Your task to perform on an android device: turn on bluetooth scan Image 0: 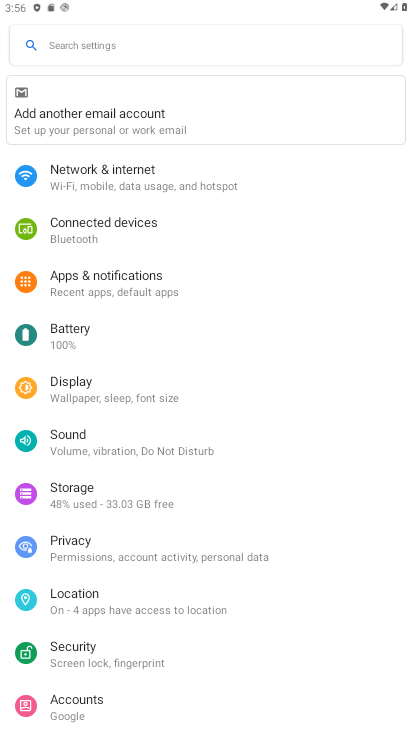
Step 0: click (86, 629)
Your task to perform on an android device: turn on bluetooth scan Image 1: 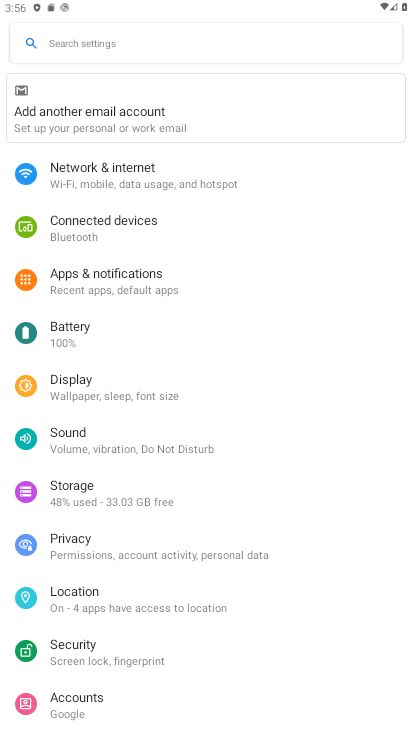
Step 1: click (92, 595)
Your task to perform on an android device: turn on bluetooth scan Image 2: 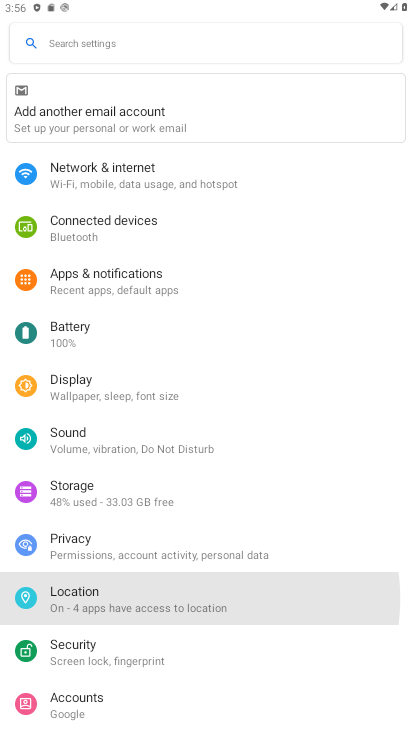
Step 2: click (92, 598)
Your task to perform on an android device: turn on bluetooth scan Image 3: 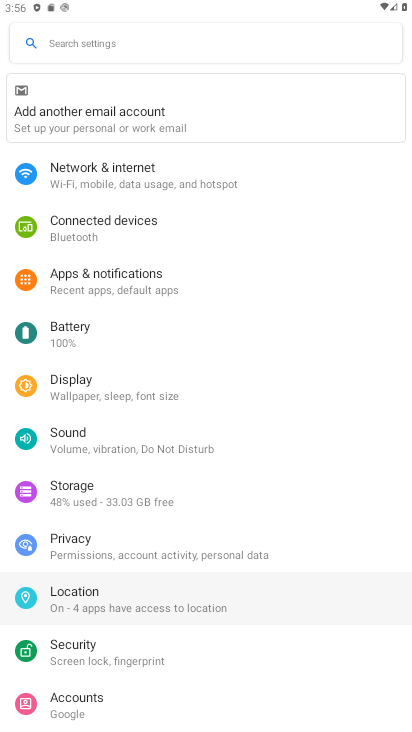
Step 3: click (123, 590)
Your task to perform on an android device: turn on bluetooth scan Image 4: 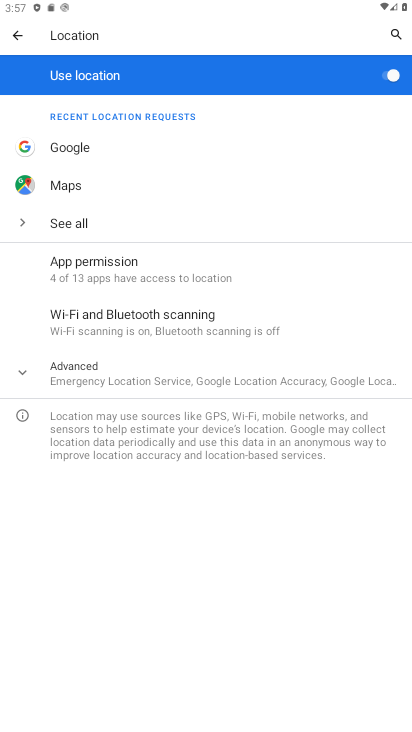
Step 4: click (104, 281)
Your task to perform on an android device: turn on bluetooth scan Image 5: 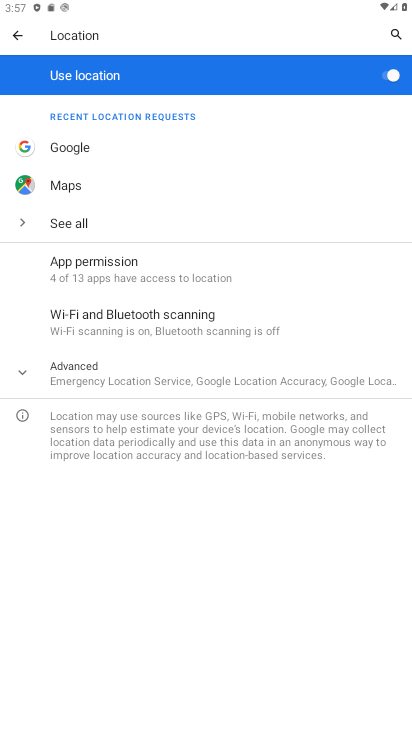
Step 5: click (113, 279)
Your task to perform on an android device: turn on bluetooth scan Image 6: 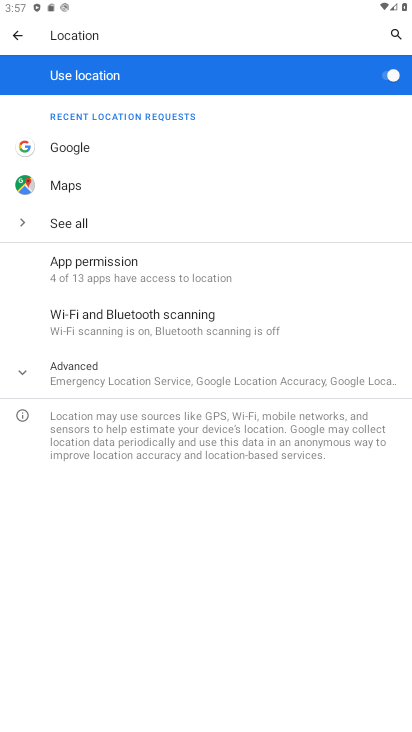
Step 6: click (119, 291)
Your task to perform on an android device: turn on bluetooth scan Image 7: 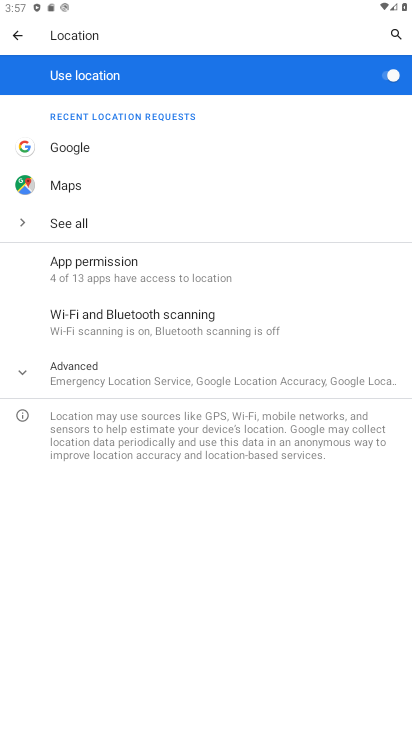
Step 7: click (124, 288)
Your task to perform on an android device: turn on bluetooth scan Image 8: 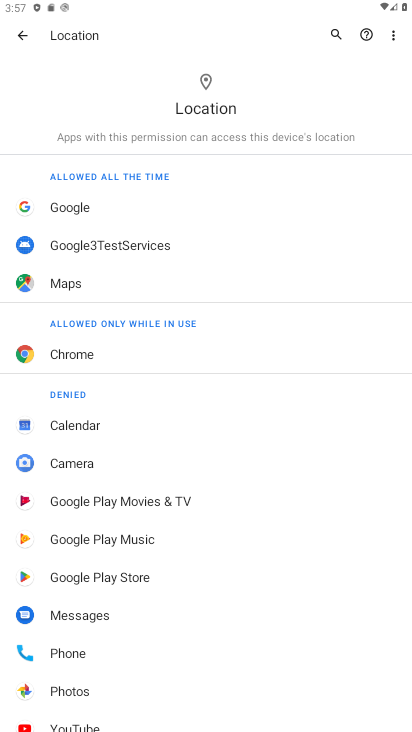
Step 8: click (38, 46)
Your task to perform on an android device: turn on bluetooth scan Image 9: 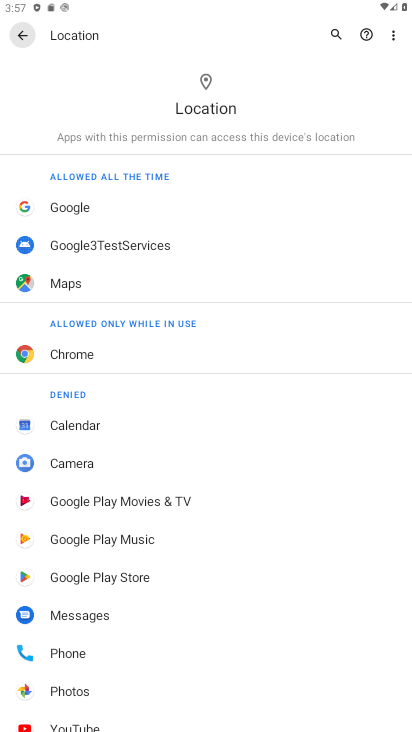
Step 9: click (35, 45)
Your task to perform on an android device: turn on bluetooth scan Image 10: 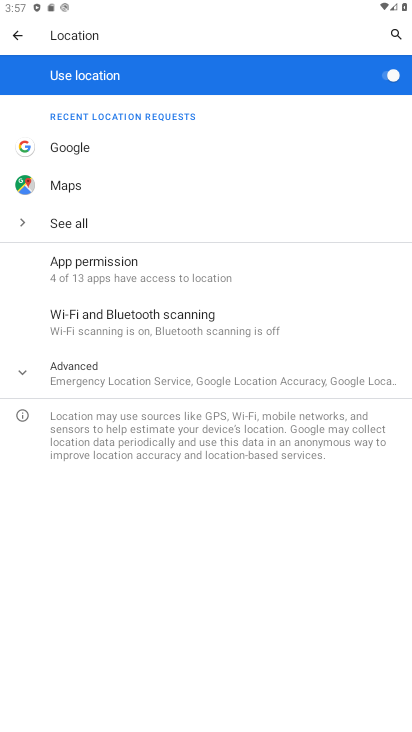
Step 10: click (116, 325)
Your task to perform on an android device: turn on bluetooth scan Image 11: 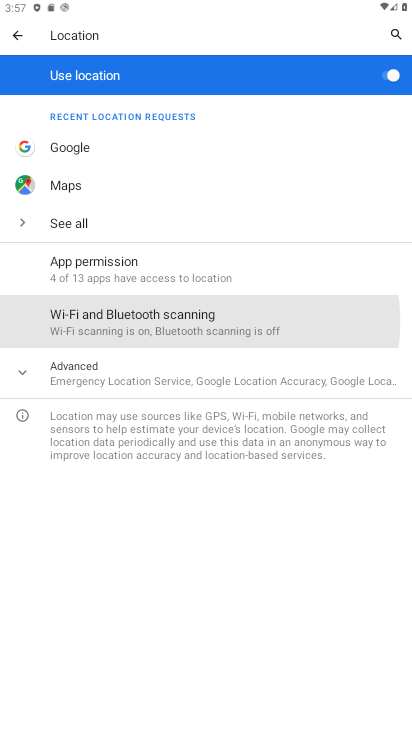
Step 11: click (116, 325)
Your task to perform on an android device: turn on bluetooth scan Image 12: 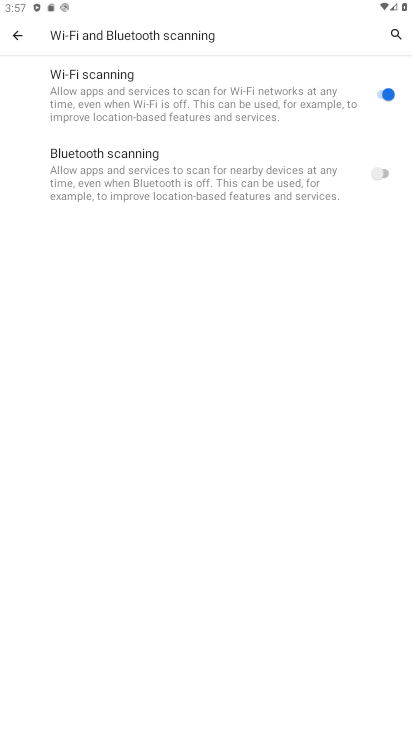
Step 12: click (378, 170)
Your task to perform on an android device: turn on bluetooth scan Image 13: 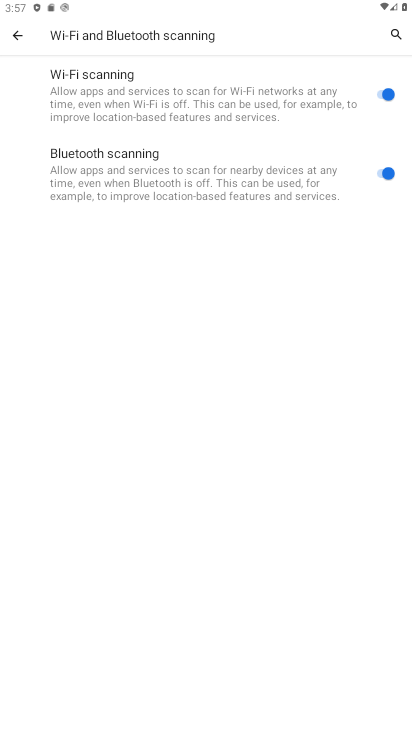
Step 13: task complete